Your task to perform on an android device: open app "The Home Depot" (install if not already installed) and enter user name: "taproot@icloud.com" and password: "executions" Image 0: 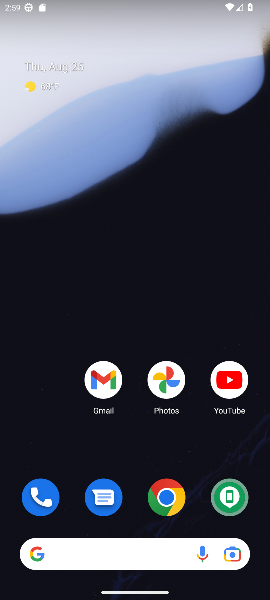
Step 0: drag from (116, 493) to (164, 22)
Your task to perform on an android device: open app "The Home Depot" (install if not already installed) and enter user name: "taproot@icloud.com" and password: "executions" Image 1: 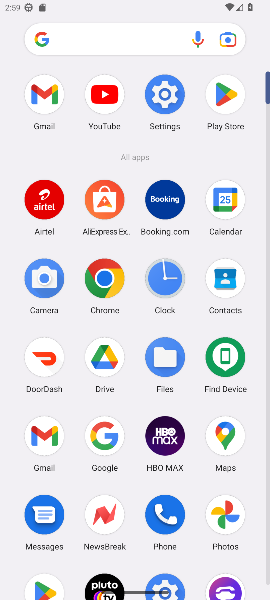
Step 1: click (225, 91)
Your task to perform on an android device: open app "The Home Depot" (install if not already installed) and enter user name: "taproot@icloud.com" and password: "executions" Image 2: 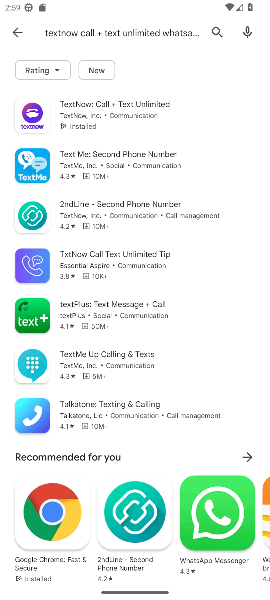
Step 2: click (19, 26)
Your task to perform on an android device: open app "The Home Depot" (install if not already installed) and enter user name: "taproot@icloud.com" and password: "executions" Image 3: 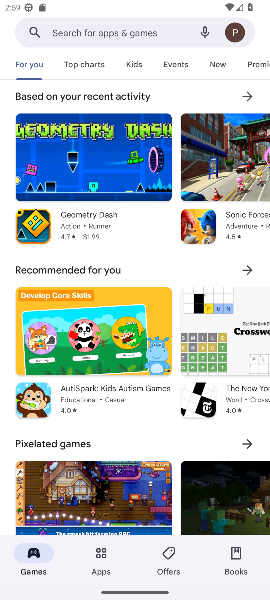
Step 3: click (69, 34)
Your task to perform on an android device: open app "The Home Depot" (install if not already installed) and enter user name: "taproot@icloud.com" and password: "executions" Image 4: 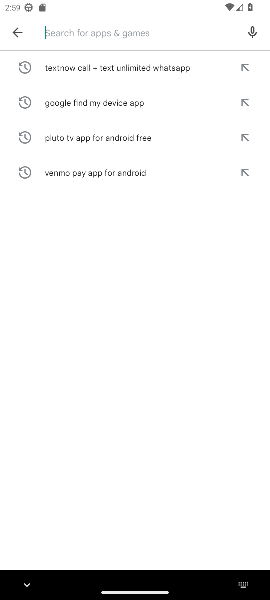
Step 4: type "The Home Depot "
Your task to perform on an android device: open app "The Home Depot" (install if not already installed) and enter user name: "taproot@icloud.com" and password: "executions" Image 5: 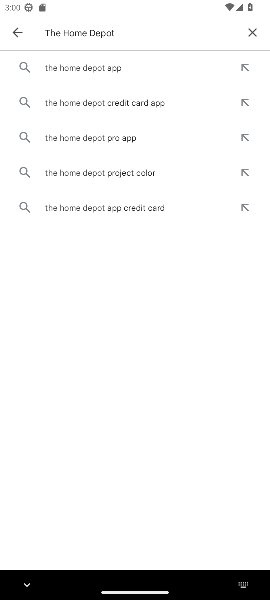
Step 5: click (86, 75)
Your task to perform on an android device: open app "The Home Depot" (install if not already installed) and enter user name: "taproot@icloud.com" and password: "executions" Image 6: 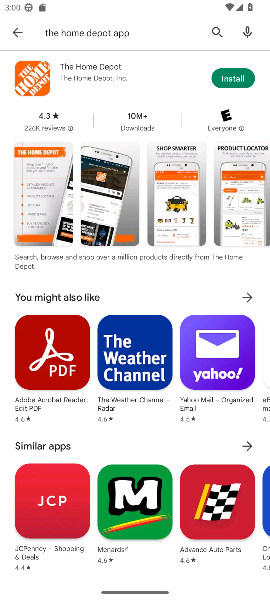
Step 6: click (223, 75)
Your task to perform on an android device: open app "The Home Depot" (install if not already installed) and enter user name: "taproot@icloud.com" and password: "executions" Image 7: 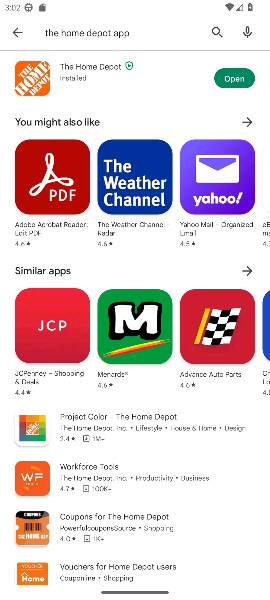
Step 7: task complete